Your task to perform on an android device: toggle translation in the chrome app Image 0: 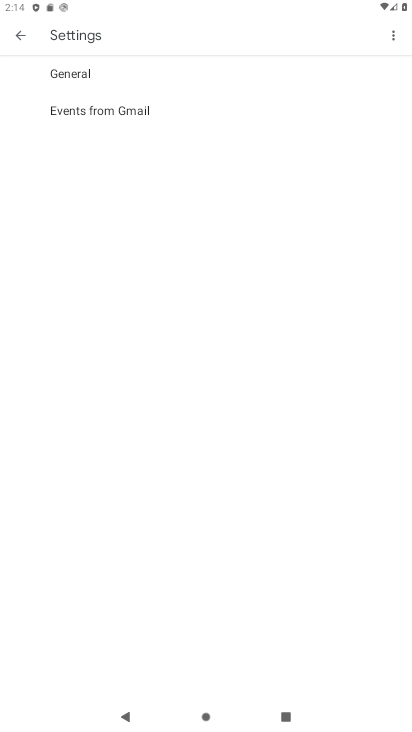
Step 0: press home button
Your task to perform on an android device: toggle translation in the chrome app Image 1: 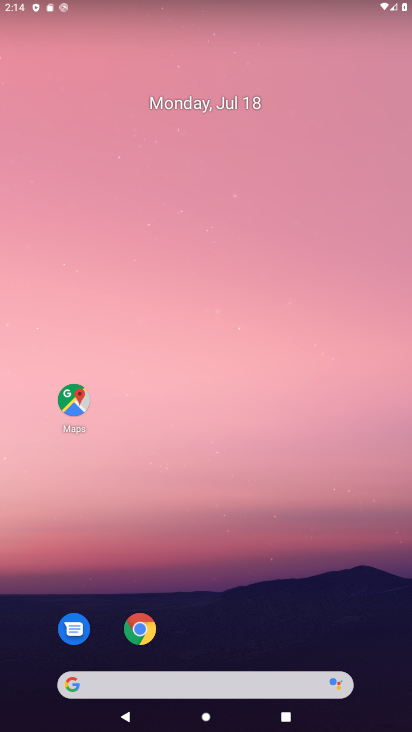
Step 1: click (140, 641)
Your task to perform on an android device: toggle translation in the chrome app Image 2: 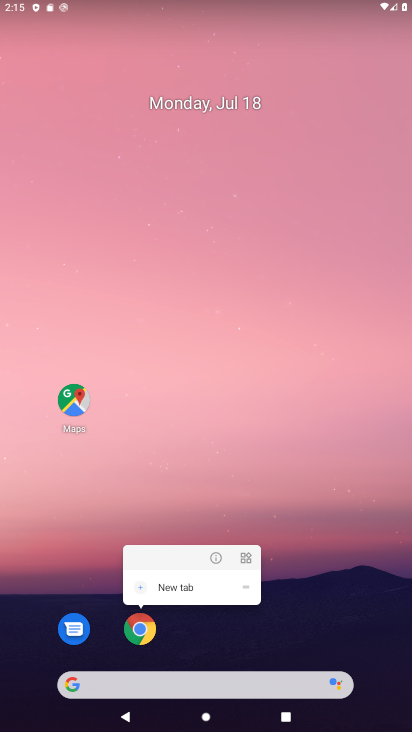
Step 2: drag from (228, 224) to (228, 105)
Your task to perform on an android device: toggle translation in the chrome app Image 3: 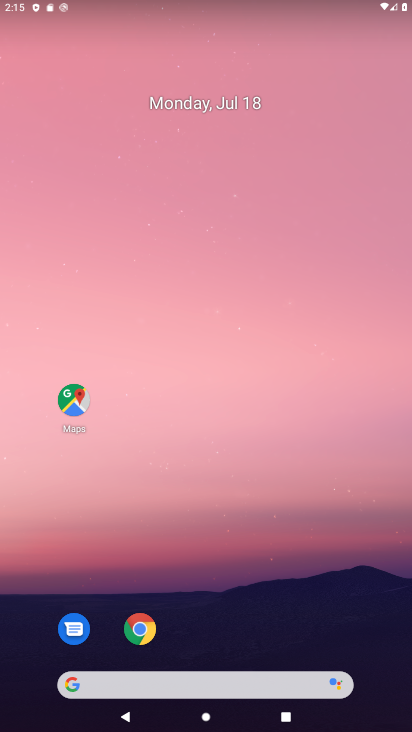
Step 3: drag from (262, 627) to (274, 173)
Your task to perform on an android device: toggle translation in the chrome app Image 4: 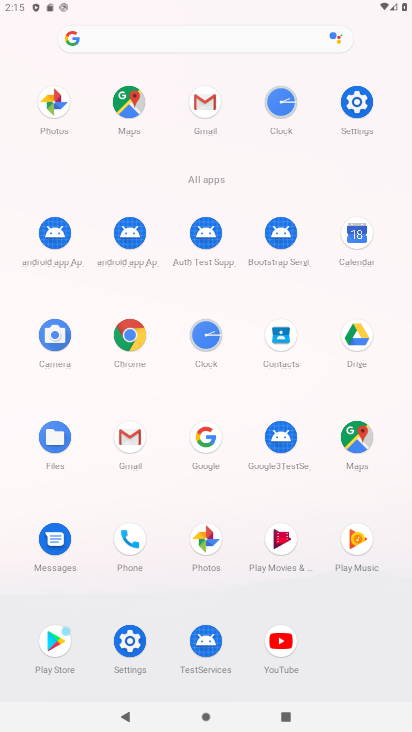
Step 4: click (140, 335)
Your task to perform on an android device: toggle translation in the chrome app Image 5: 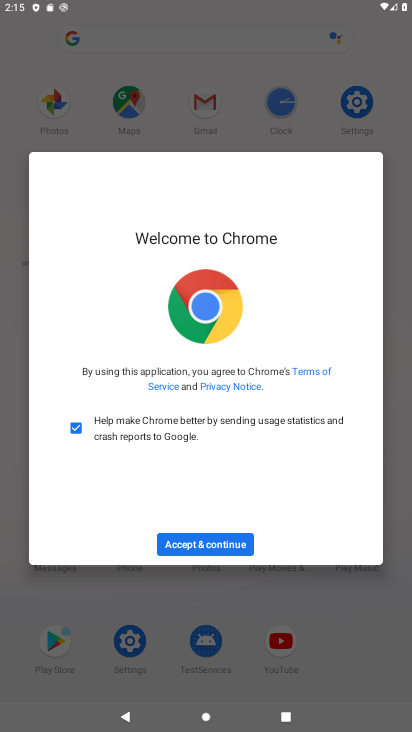
Step 5: click (206, 544)
Your task to perform on an android device: toggle translation in the chrome app Image 6: 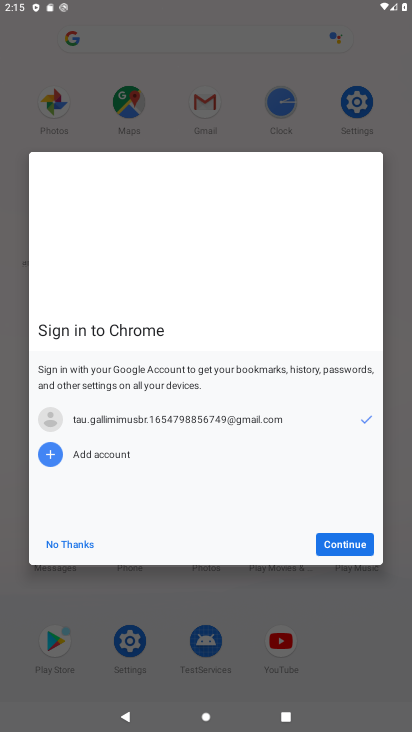
Step 6: click (336, 544)
Your task to perform on an android device: toggle translation in the chrome app Image 7: 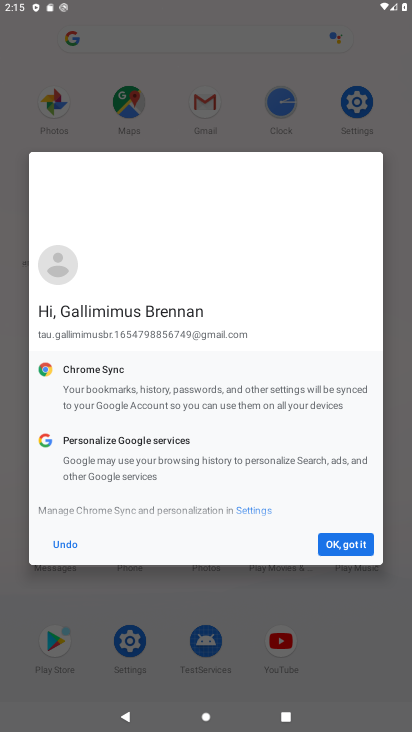
Step 7: click (336, 544)
Your task to perform on an android device: toggle translation in the chrome app Image 8: 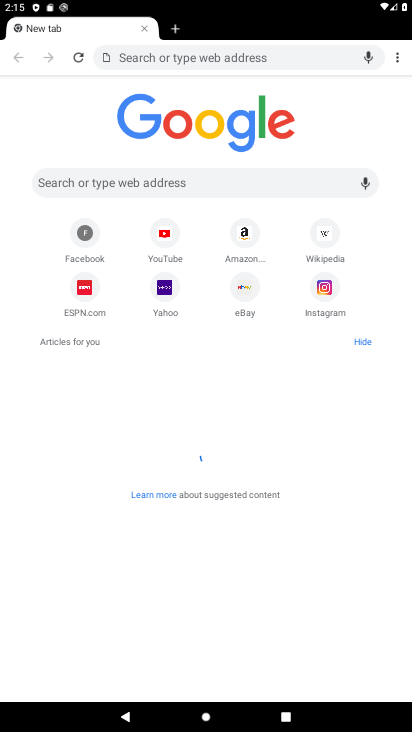
Step 8: click (399, 51)
Your task to perform on an android device: toggle translation in the chrome app Image 9: 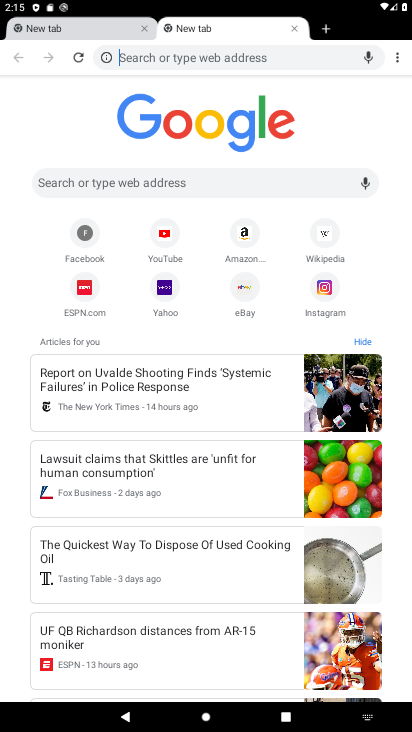
Step 9: drag from (125, 674) to (153, 139)
Your task to perform on an android device: toggle translation in the chrome app Image 10: 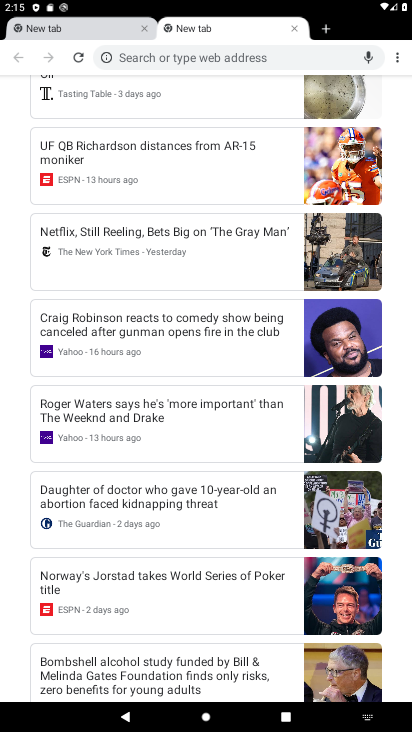
Step 10: click (396, 57)
Your task to perform on an android device: toggle translation in the chrome app Image 11: 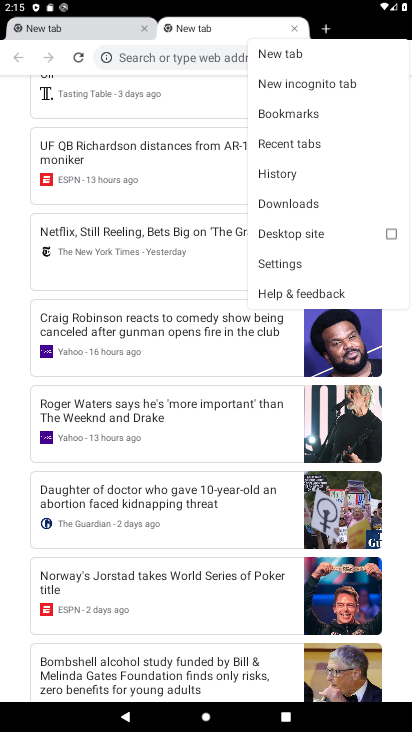
Step 11: click (271, 265)
Your task to perform on an android device: toggle translation in the chrome app Image 12: 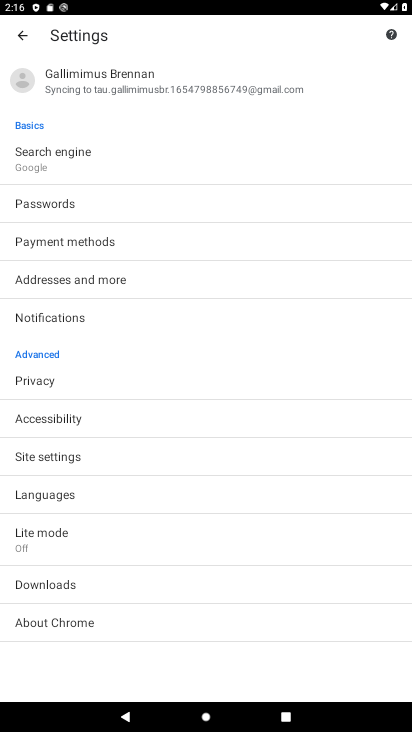
Step 12: click (39, 498)
Your task to perform on an android device: toggle translation in the chrome app Image 13: 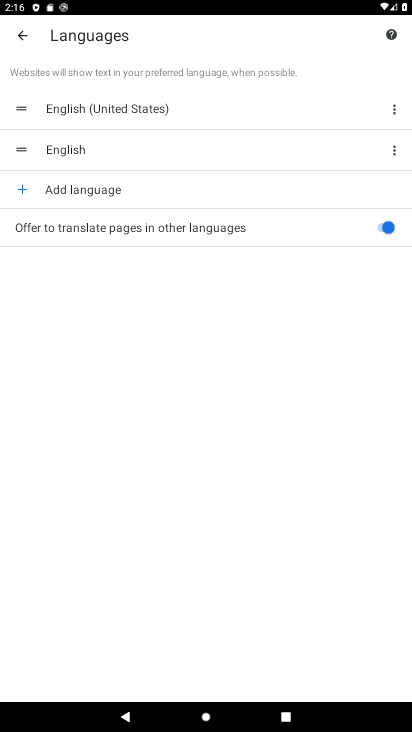
Step 13: click (384, 224)
Your task to perform on an android device: toggle translation in the chrome app Image 14: 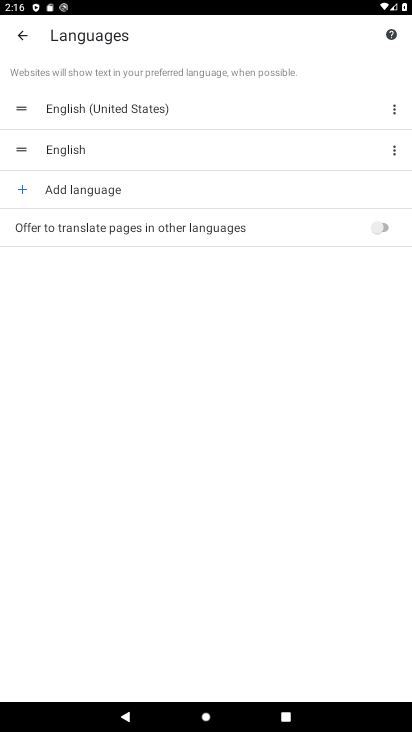
Step 14: task complete